Your task to perform on an android device: See recent photos Image 0: 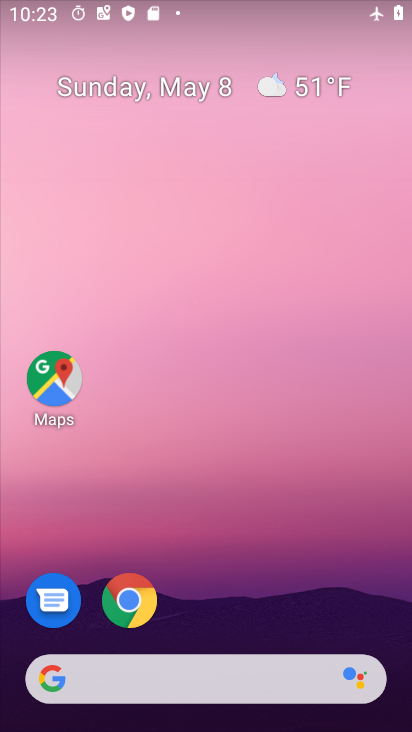
Step 0: drag from (301, 502) to (278, 34)
Your task to perform on an android device: See recent photos Image 1: 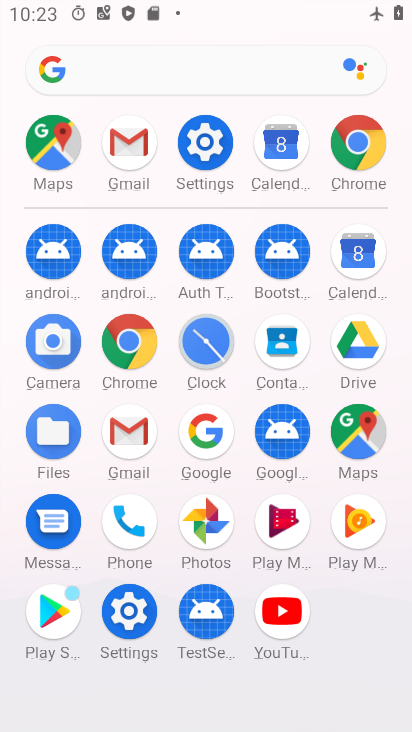
Step 1: click (205, 524)
Your task to perform on an android device: See recent photos Image 2: 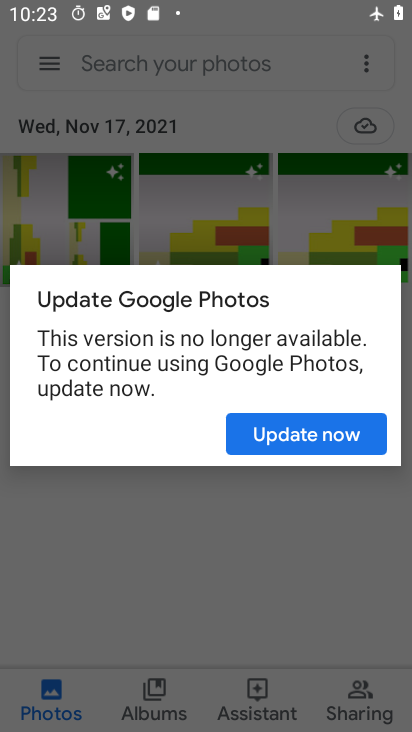
Step 2: click (348, 441)
Your task to perform on an android device: See recent photos Image 3: 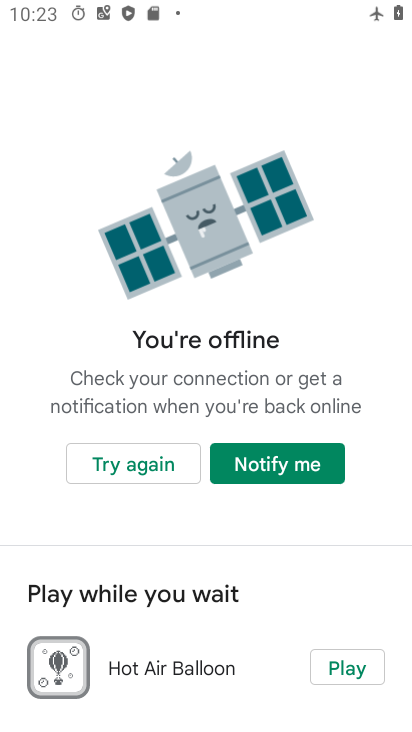
Step 3: click (130, 464)
Your task to perform on an android device: See recent photos Image 4: 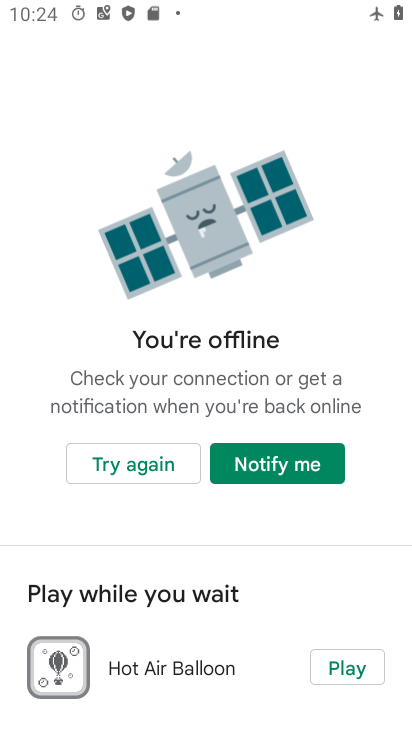
Step 4: task complete